Your task to perform on an android device: Open maps Image 0: 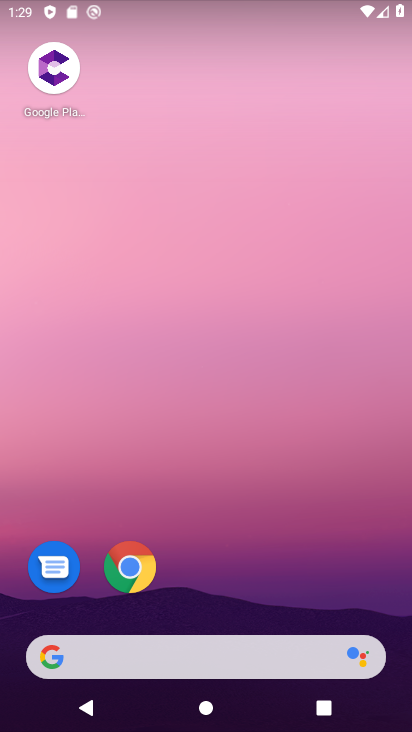
Step 0: drag from (245, 582) to (283, 103)
Your task to perform on an android device: Open maps Image 1: 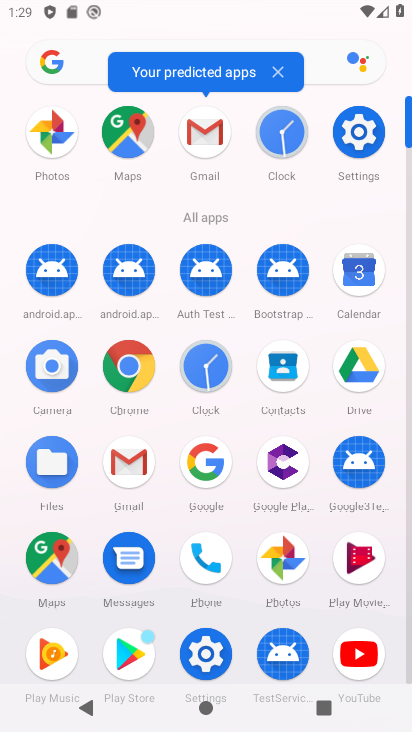
Step 1: click (130, 133)
Your task to perform on an android device: Open maps Image 2: 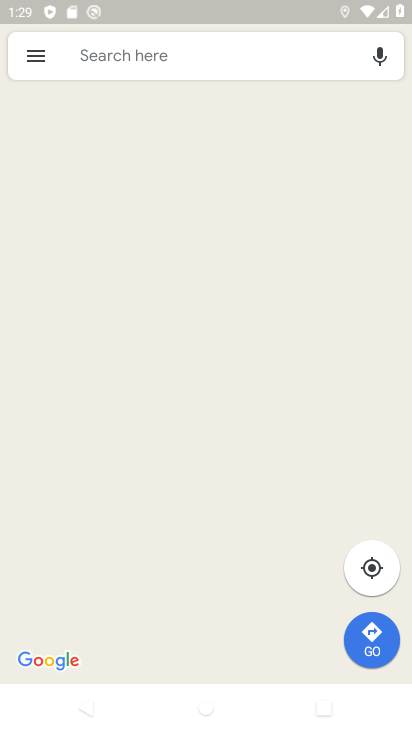
Step 2: task complete